Your task to perform on an android device: Do I have any events this weekend? Image 0: 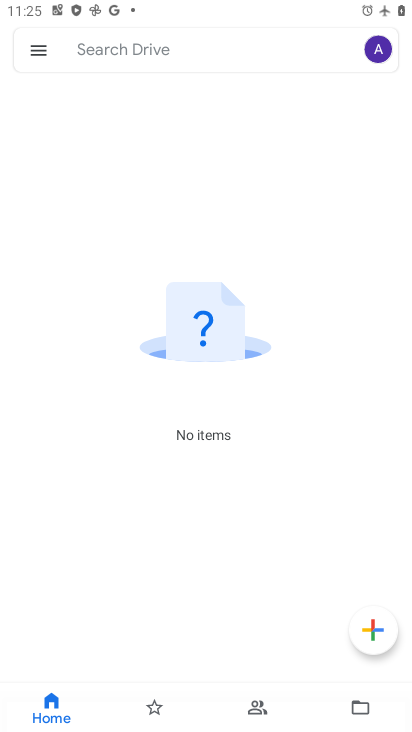
Step 0: press home button
Your task to perform on an android device: Do I have any events this weekend? Image 1: 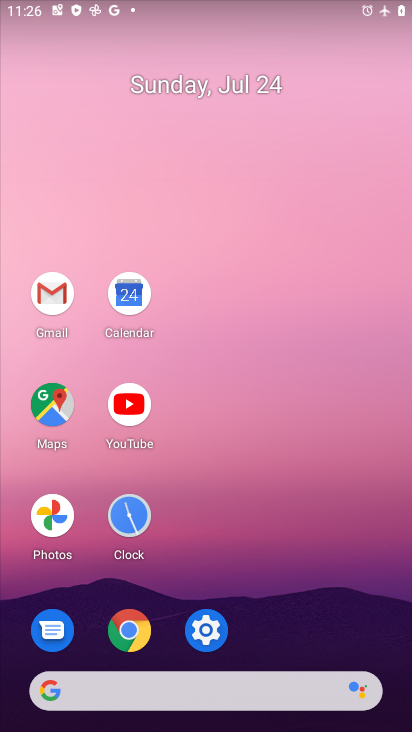
Step 1: click (128, 294)
Your task to perform on an android device: Do I have any events this weekend? Image 2: 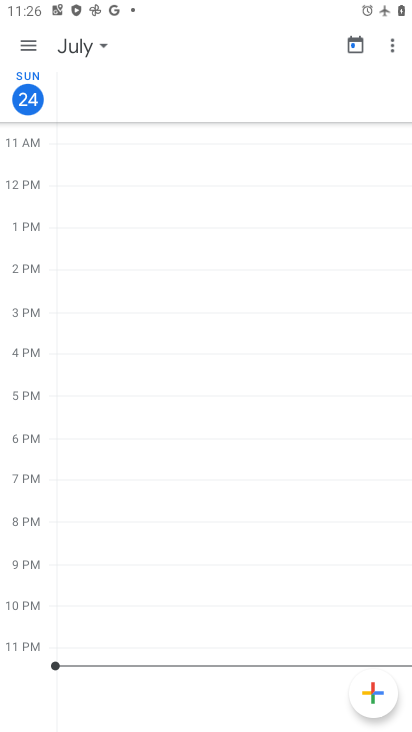
Step 2: click (26, 45)
Your task to perform on an android device: Do I have any events this weekend? Image 3: 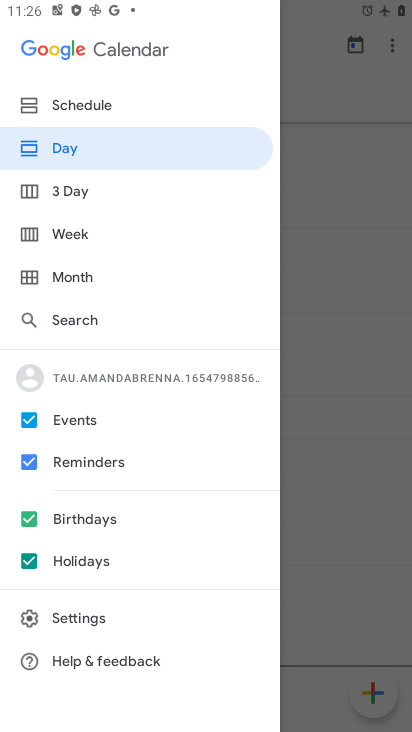
Step 3: click (63, 235)
Your task to perform on an android device: Do I have any events this weekend? Image 4: 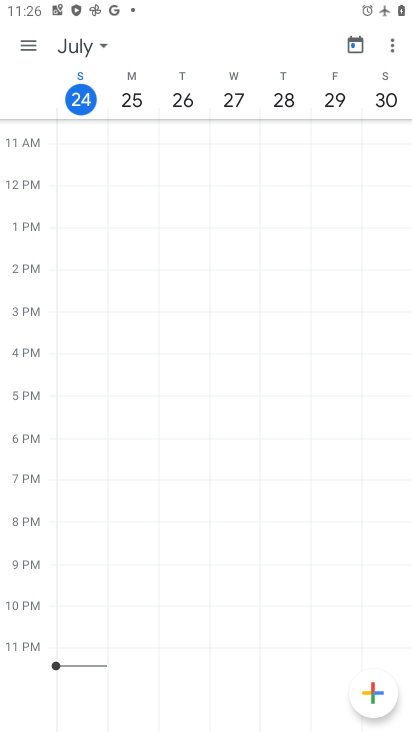
Step 4: task complete